Your task to perform on an android device: Search for pizza restaurants on Maps Image 0: 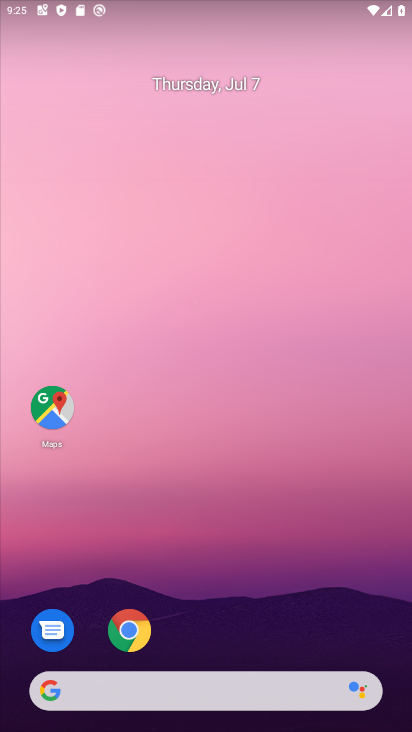
Step 0: drag from (194, 657) to (335, 0)
Your task to perform on an android device: Search for pizza restaurants on Maps Image 1: 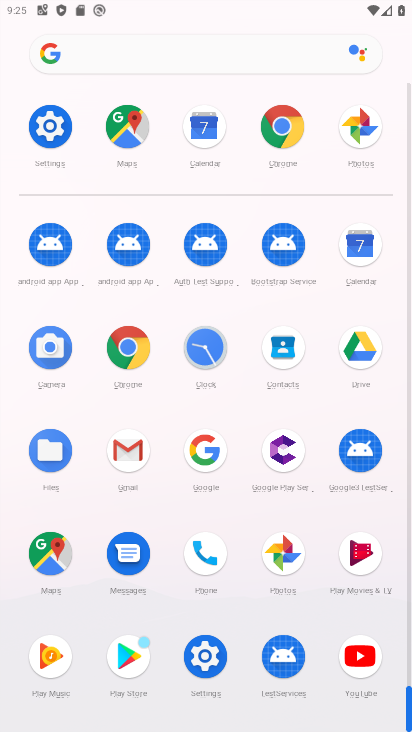
Step 1: click (42, 556)
Your task to perform on an android device: Search for pizza restaurants on Maps Image 2: 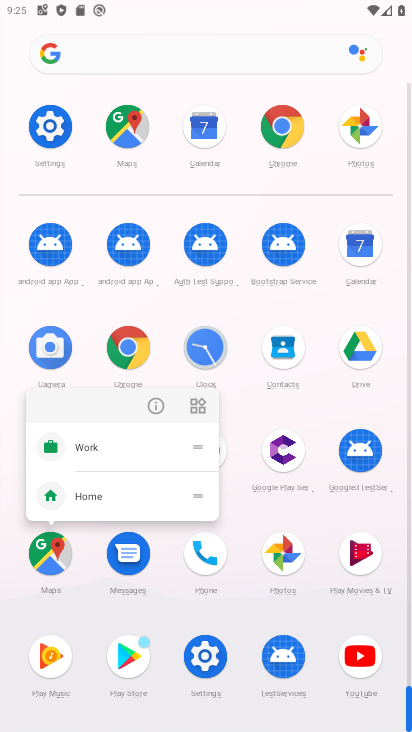
Step 2: click (152, 399)
Your task to perform on an android device: Search for pizza restaurants on Maps Image 3: 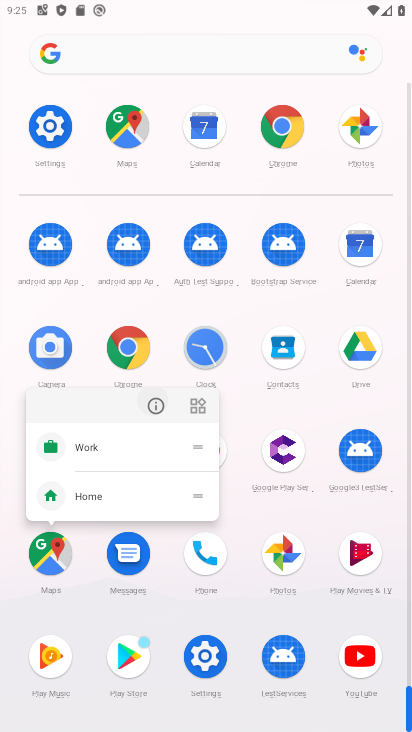
Step 3: click (152, 399)
Your task to perform on an android device: Search for pizza restaurants on Maps Image 4: 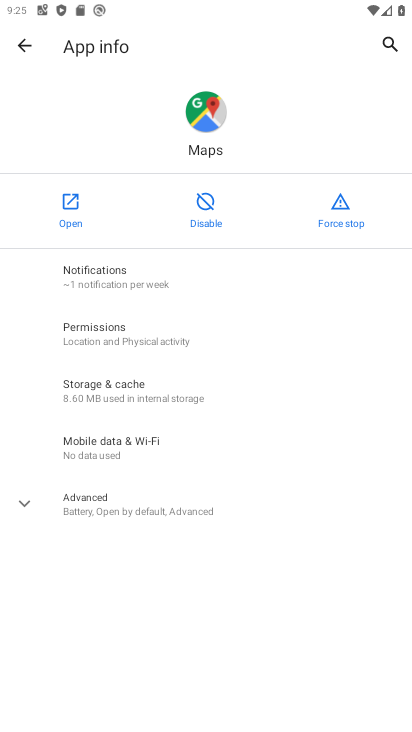
Step 4: click (71, 199)
Your task to perform on an android device: Search for pizza restaurants on Maps Image 5: 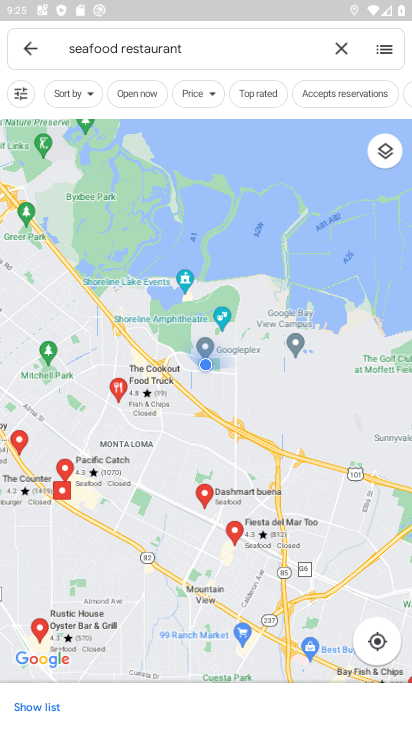
Step 5: click (340, 38)
Your task to perform on an android device: Search for pizza restaurants on Maps Image 6: 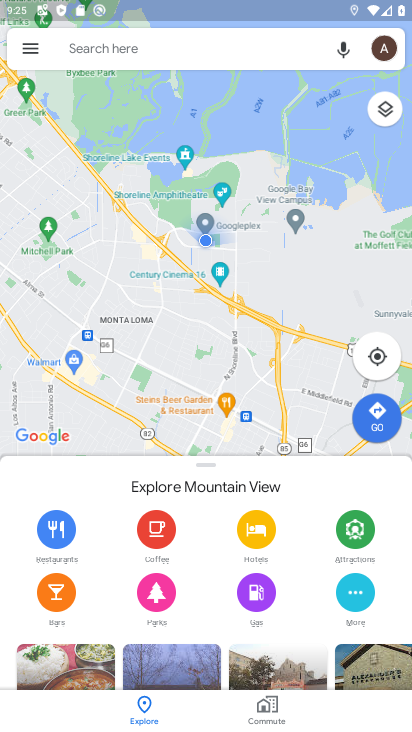
Step 6: click (111, 51)
Your task to perform on an android device: Search for pizza restaurants on Maps Image 7: 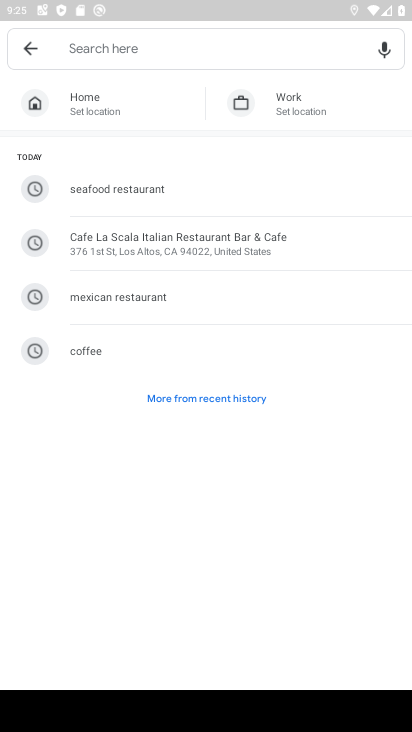
Step 7: type "pizza restaurants"
Your task to perform on an android device: Search for pizza restaurants on Maps Image 8: 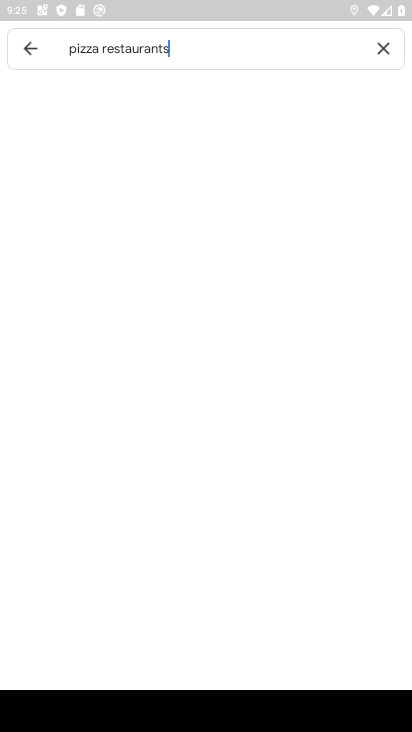
Step 8: type ""
Your task to perform on an android device: Search for pizza restaurants on Maps Image 9: 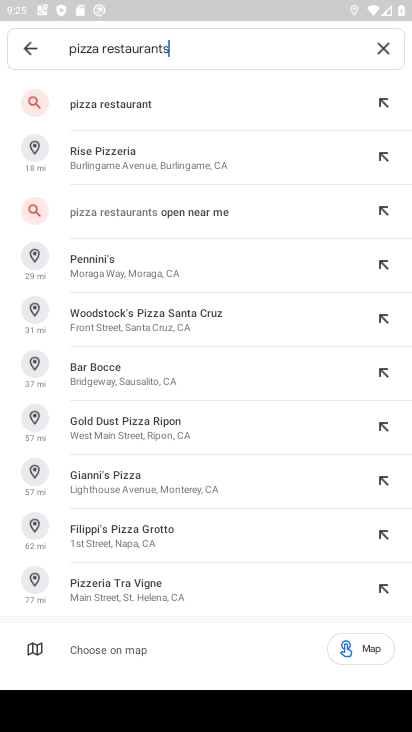
Step 9: drag from (222, 378) to (288, 219)
Your task to perform on an android device: Search for pizza restaurants on Maps Image 10: 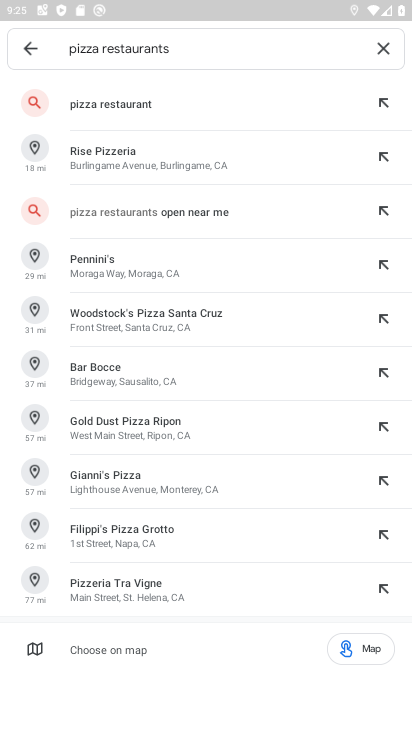
Step 10: click (161, 118)
Your task to perform on an android device: Search for pizza restaurants on Maps Image 11: 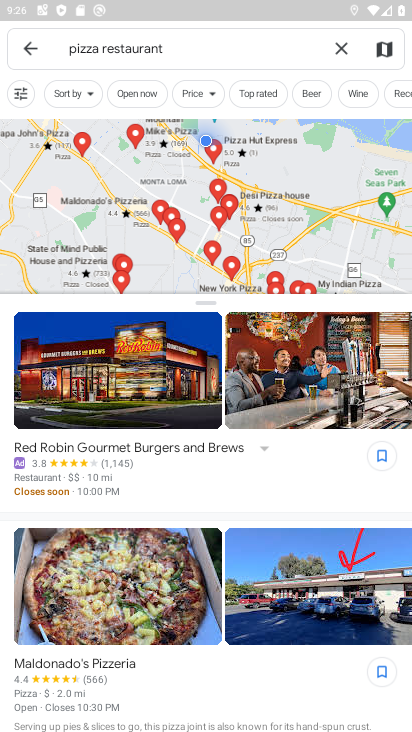
Step 11: task complete